Your task to perform on an android device: Play the last video I watched on Youtube Image 0: 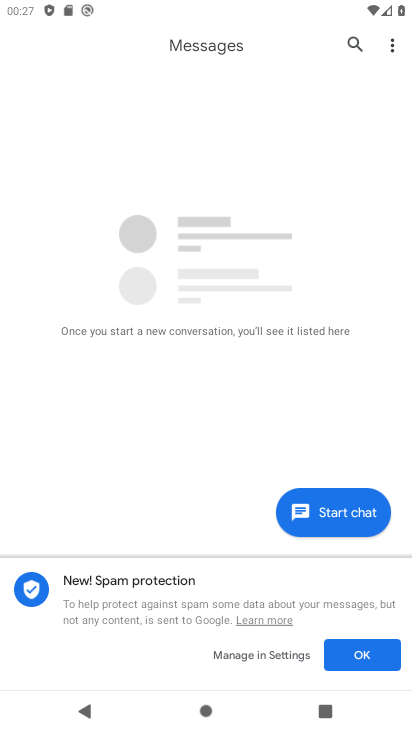
Step 0: press back button
Your task to perform on an android device: Play the last video I watched on Youtube Image 1: 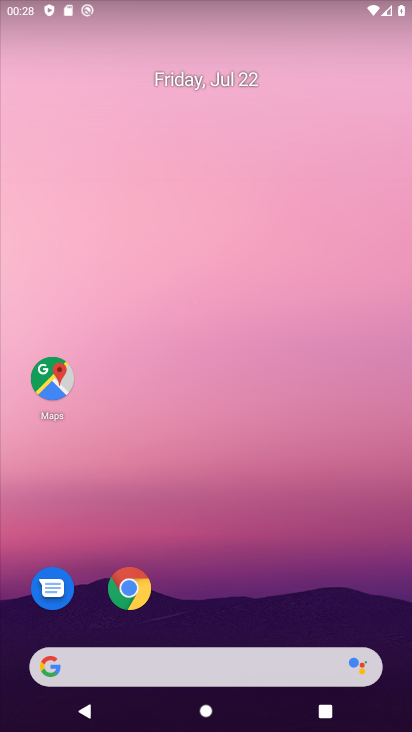
Step 1: drag from (203, 620) to (288, 0)
Your task to perform on an android device: Play the last video I watched on Youtube Image 2: 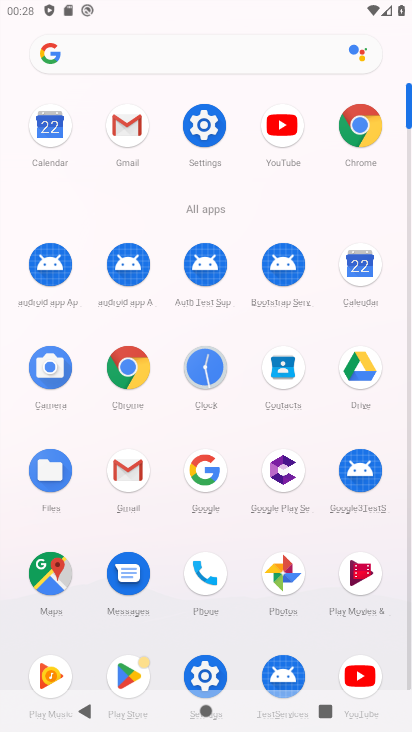
Step 2: click (354, 703)
Your task to perform on an android device: Play the last video I watched on Youtube Image 3: 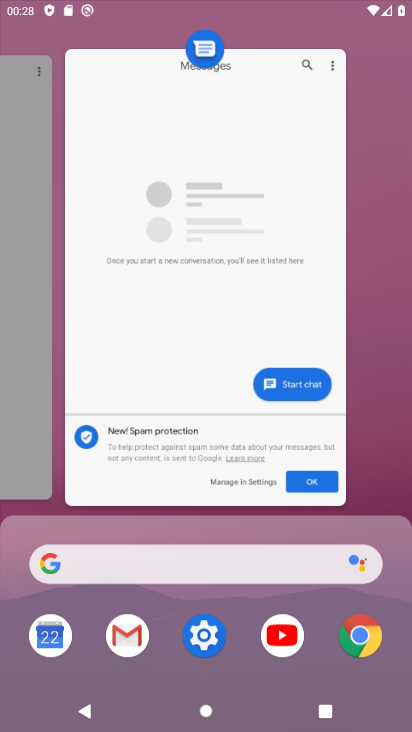
Step 3: click (292, 638)
Your task to perform on an android device: Play the last video I watched on Youtube Image 4: 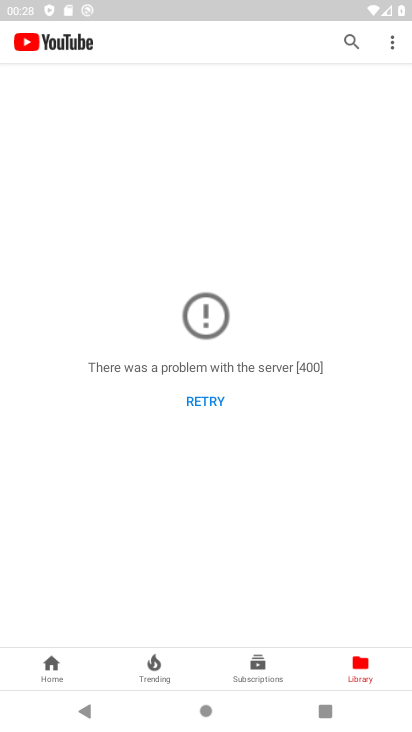
Step 4: task complete